Your task to perform on an android device: set the stopwatch Image 0: 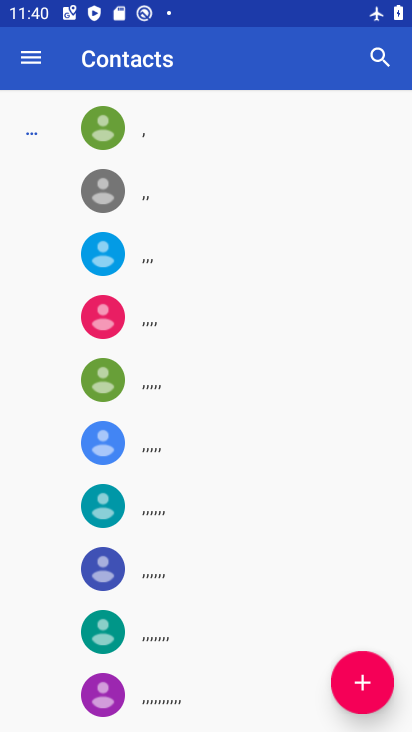
Step 0: press home button
Your task to perform on an android device: set the stopwatch Image 1: 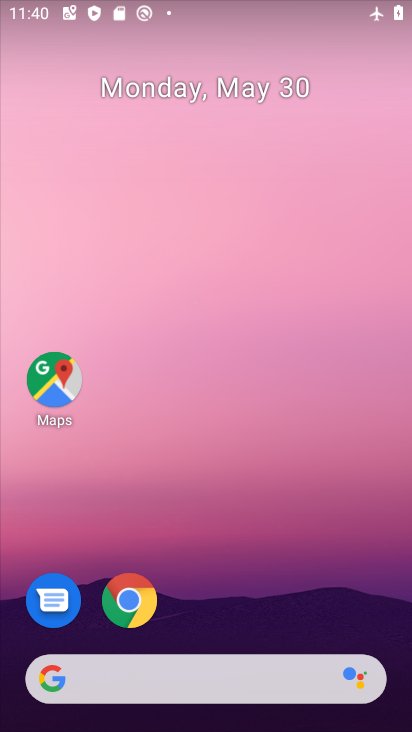
Step 1: drag from (229, 728) to (243, 1)
Your task to perform on an android device: set the stopwatch Image 2: 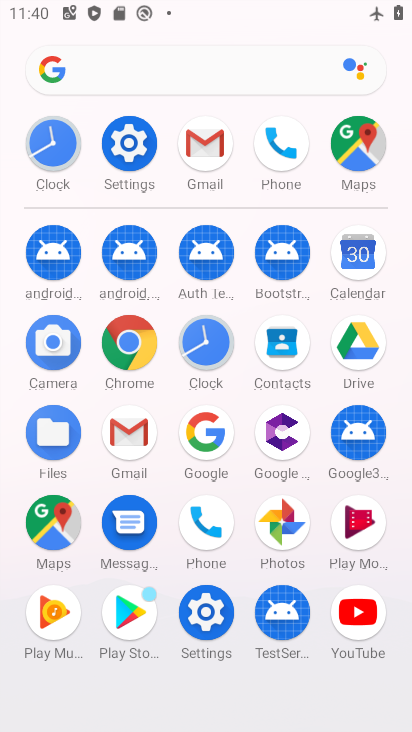
Step 2: click (208, 346)
Your task to perform on an android device: set the stopwatch Image 3: 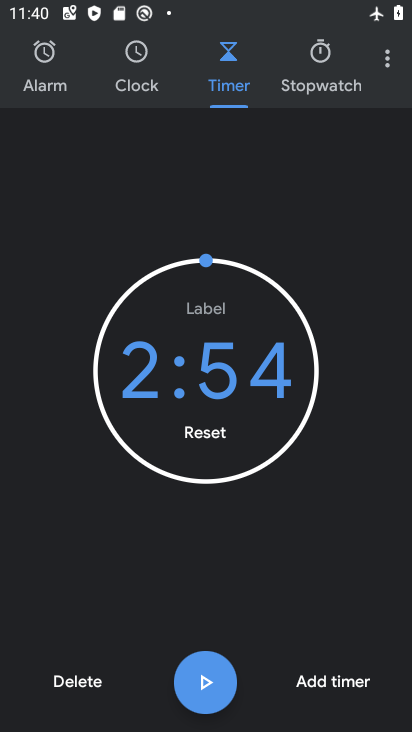
Step 3: click (321, 58)
Your task to perform on an android device: set the stopwatch Image 4: 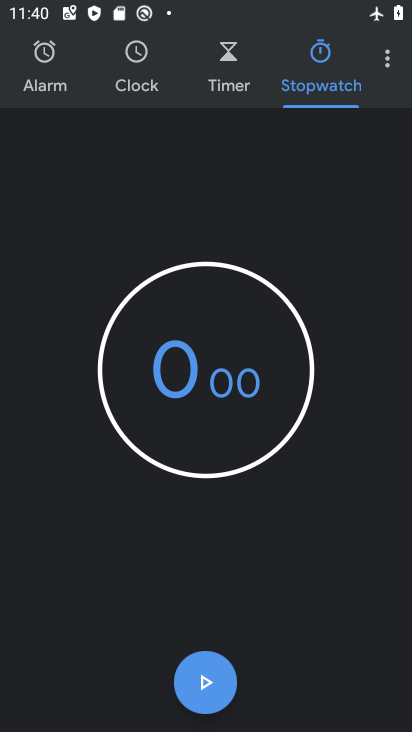
Step 4: task complete